Your task to perform on an android device: Show me the alarms in the clock app Image 0: 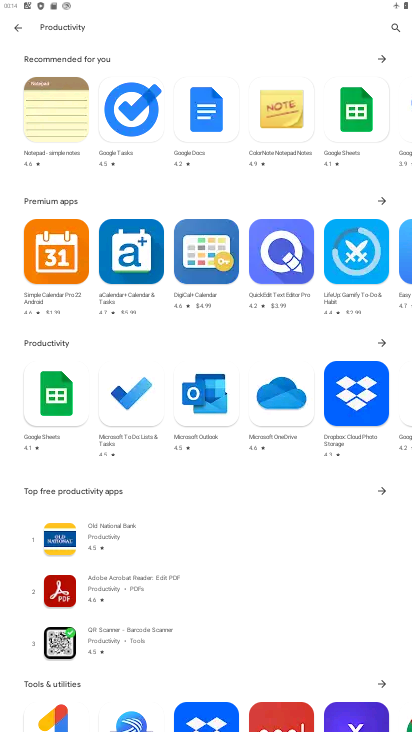
Step 0: press home button
Your task to perform on an android device: Show me the alarms in the clock app Image 1: 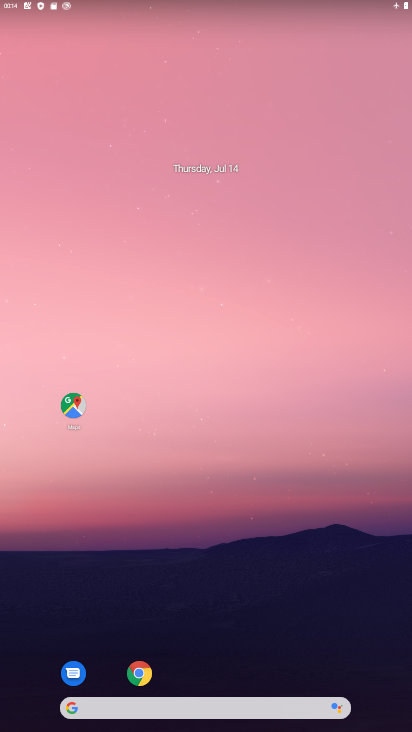
Step 1: drag from (193, 662) to (202, 206)
Your task to perform on an android device: Show me the alarms in the clock app Image 2: 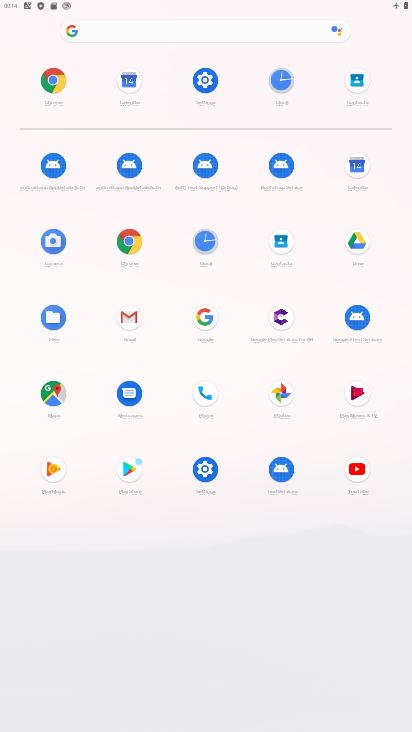
Step 2: click (264, 79)
Your task to perform on an android device: Show me the alarms in the clock app Image 3: 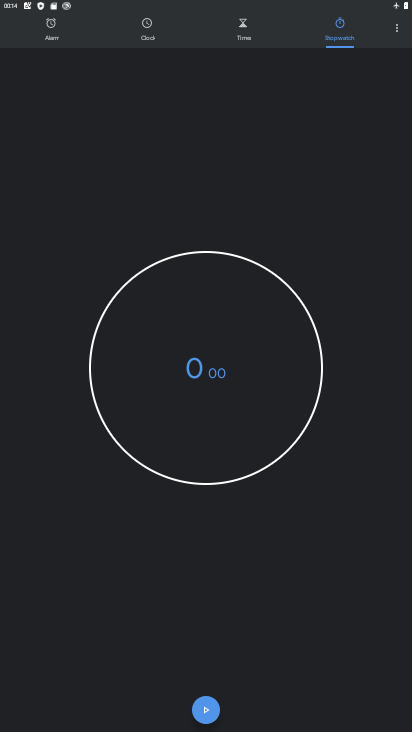
Step 3: click (57, 36)
Your task to perform on an android device: Show me the alarms in the clock app Image 4: 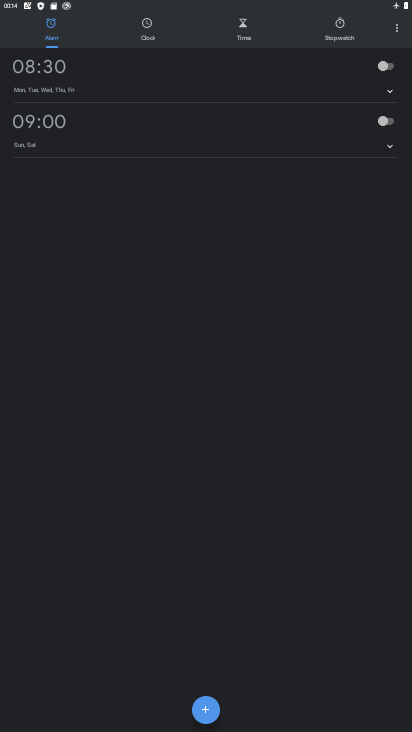
Step 4: task complete